Your task to perform on an android device: turn off picture-in-picture Image 0: 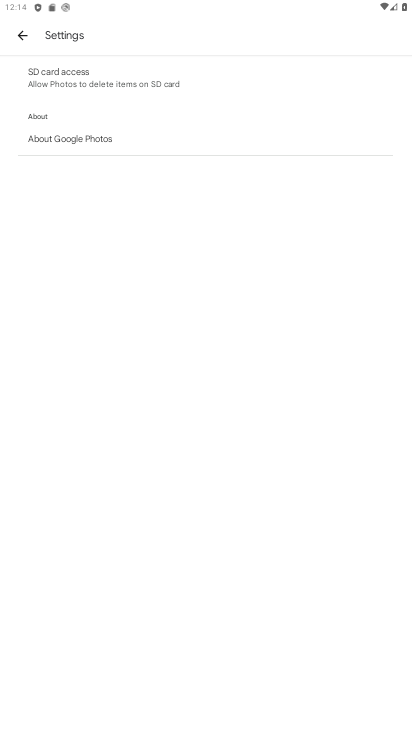
Step 0: press home button
Your task to perform on an android device: turn off picture-in-picture Image 1: 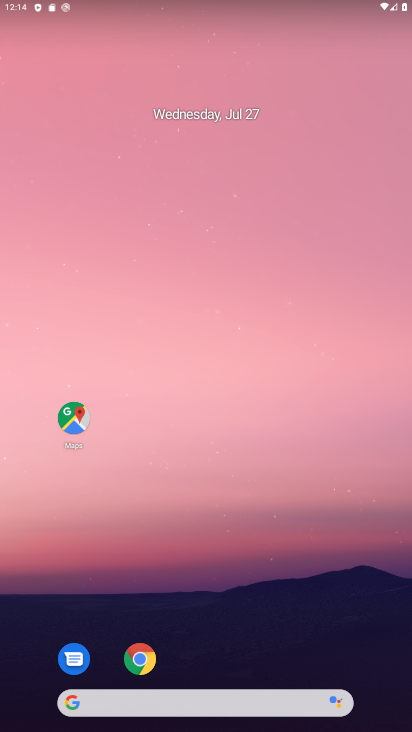
Step 1: drag from (250, 609) to (153, 235)
Your task to perform on an android device: turn off picture-in-picture Image 2: 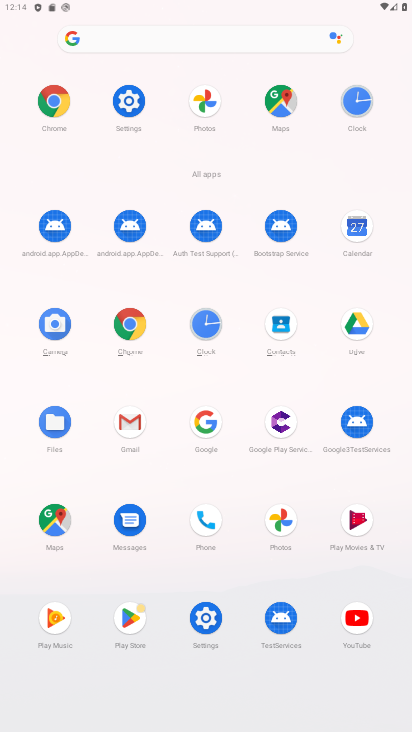
Step 2: click (118, 327)
Your task to perform on an android device: turn off picture-in-picture Image 3: 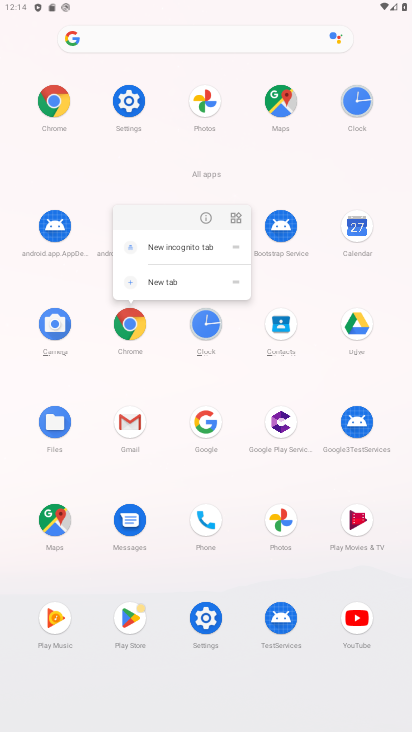
Step 3: click (206, 219)
Your task to perform on an android device: turn off picture-in-picture Image 4: 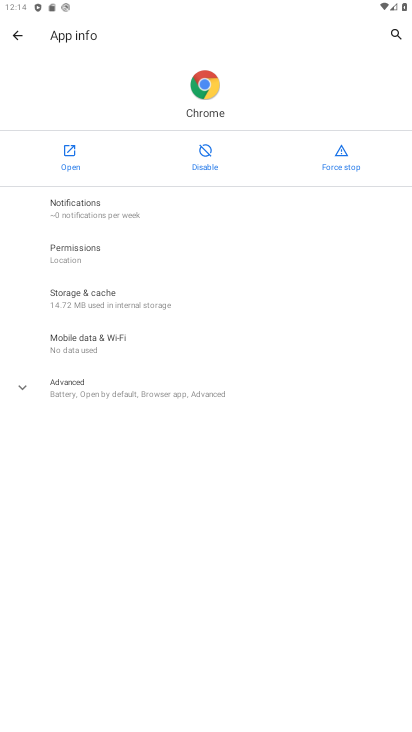
Step 4: click (71, 399)
Your task to perform on an android device: turn off picture-in-picture Image 5: 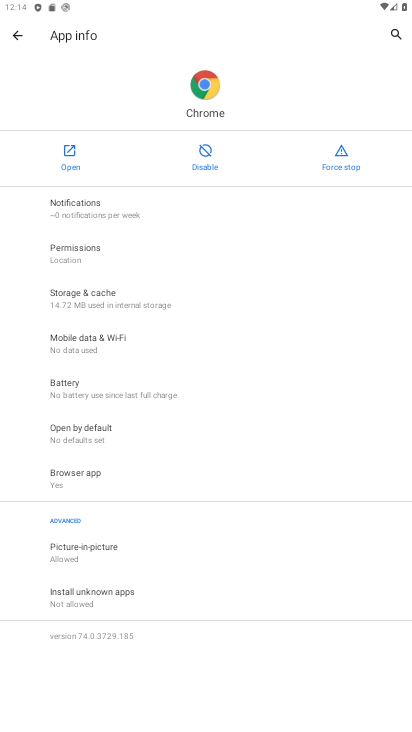
Step 5: click (101, 554)
Your task to perform on an android device: turn off picture-in-picture Image 6: 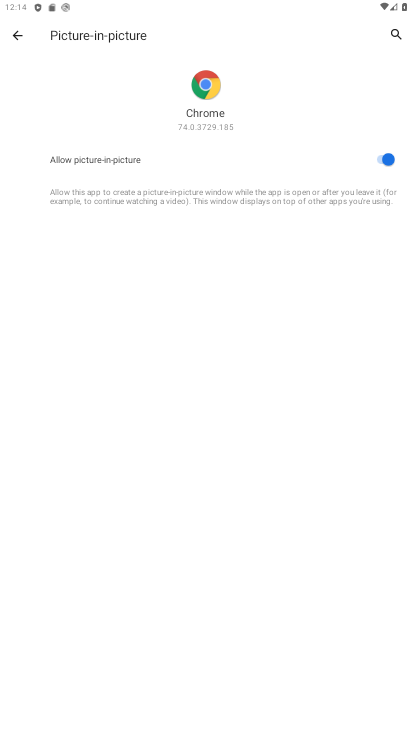
Step 6: click (380, 156)
Your task to perform on an android device: turn off picture-in-picture Image 7: 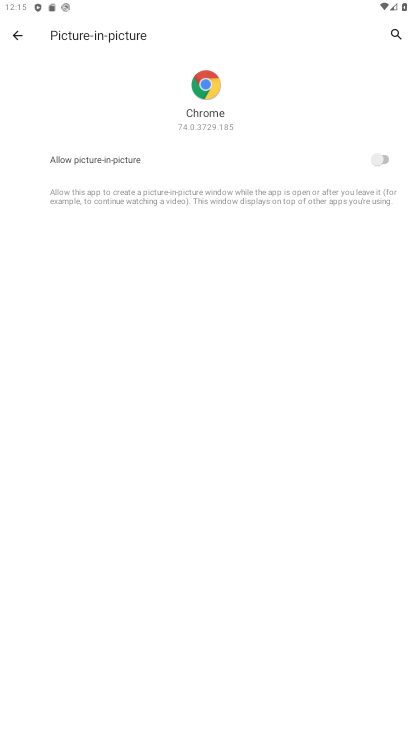
Step 7: task complete